Your task to perform on an android device: Clear the shopping cart on amazon. Image 0: 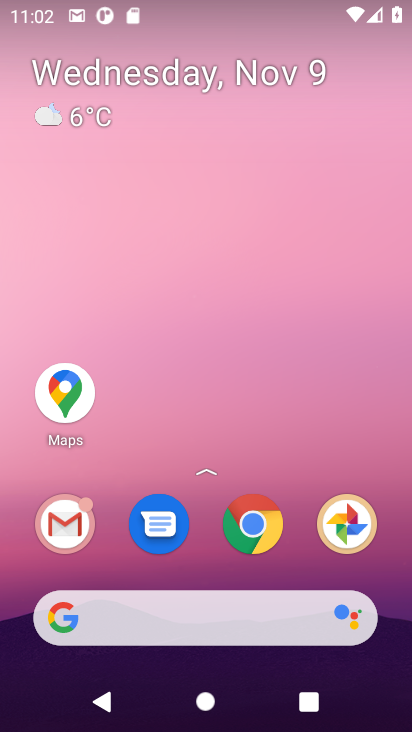
Step 0: click (246, 533)
Your task to perform on an android device: Clear the shopping cart on amazon. Image 1: 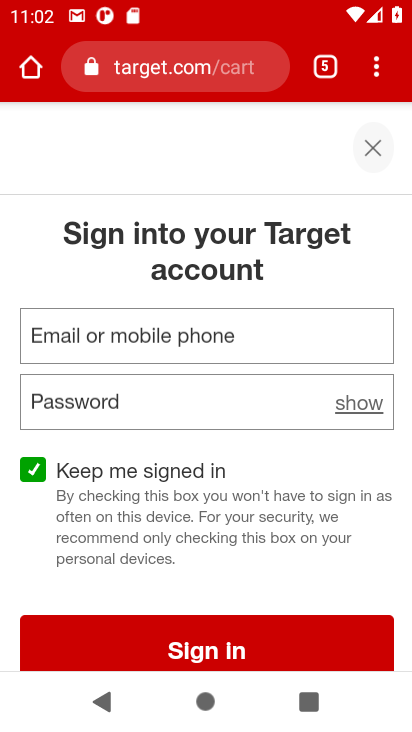
Step 1: click (324, 72)
Your task to perform on an android device: Clear the shopping cart on amazon. Image 2: 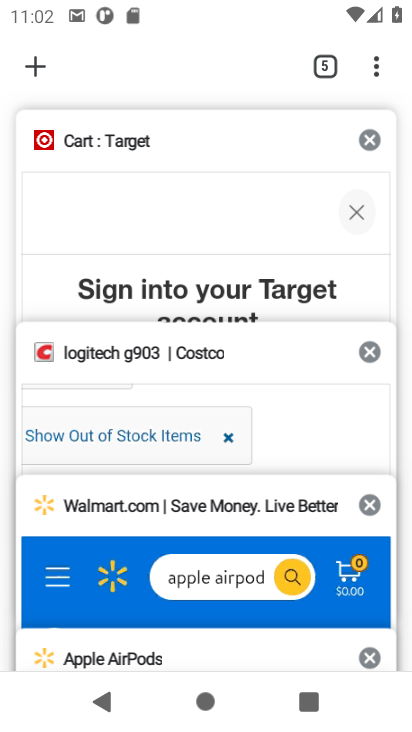
Step 2: click (36, 70)
Your task to perform on an android device: Clear the shopping cart on amazon. Image 3: 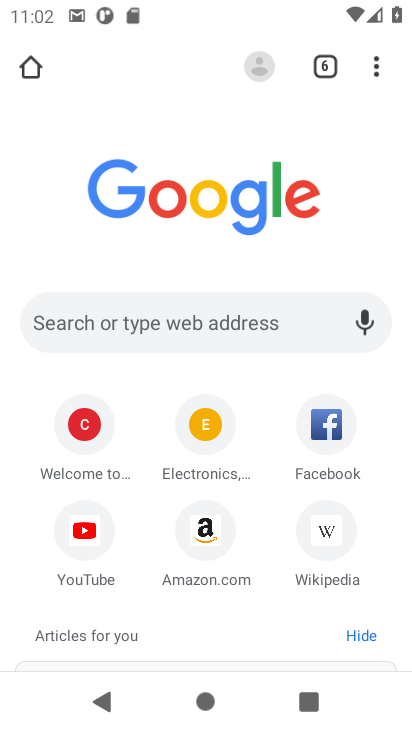
Step 3: click (199, 306)
Your task to perform on an android device: Clear the shopping cart on amazon. Image 4: 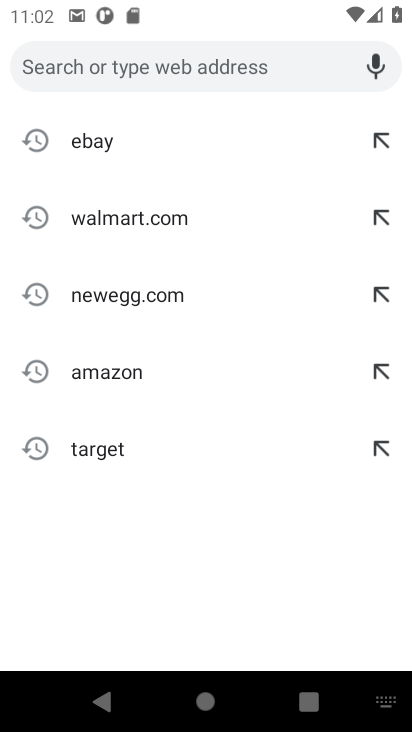
Step 4: click (110, 362)
Your task to perform on an android device: Clear the shopping cart on amazon. Image 5: 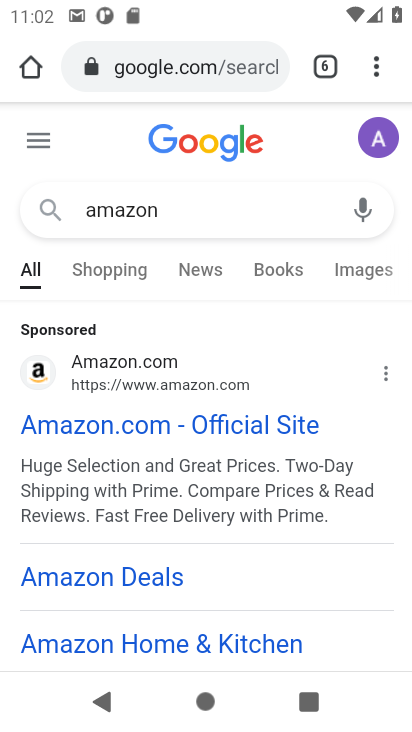
Step 5: click (128, 422)
Your task to perform on an android device: Clear the shopping cart on amazon. Image 6: 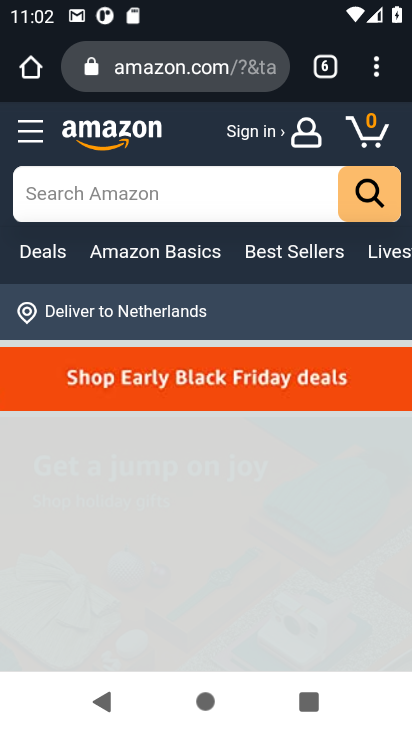
Step 6: task complete